Your task to perform on an android device: Open the calendar app, open the side menu, and click the "Day" option Image 0: 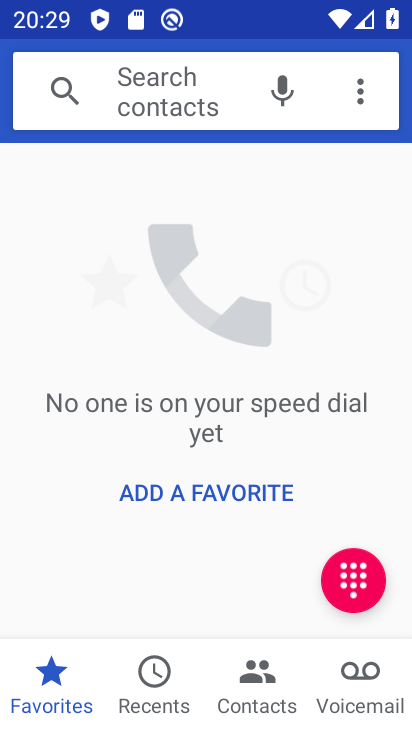
Step 0: press home button
Your task to perform on an android device: Open the calendar app, open the side menu, and click the "Day" option Image 1: 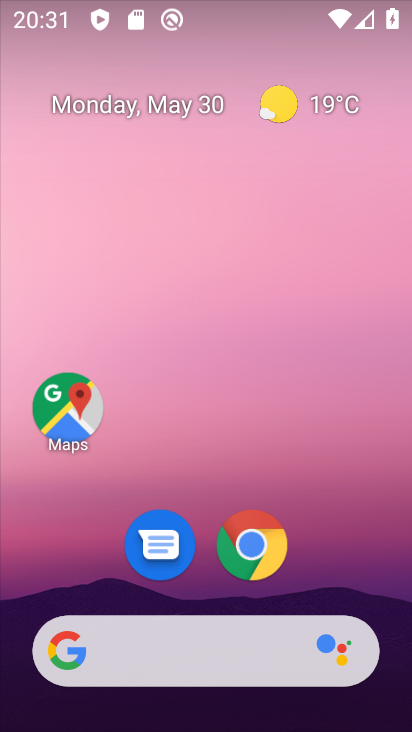
Step 1: click (182, 107)
Your task to perform on an android device: Open the calendar app, open the side menu, and click the "Day" option Image 2: 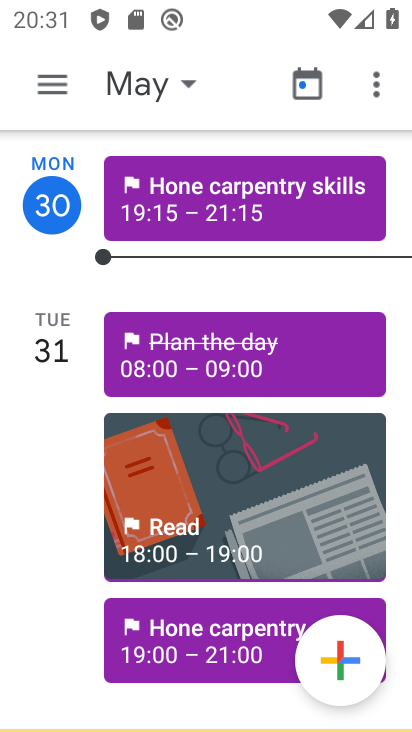
Step 2: click (56, 84)
Your task to perform on an android device: Open the calendar app, open the side menu, and click the "Day" option Image 3: 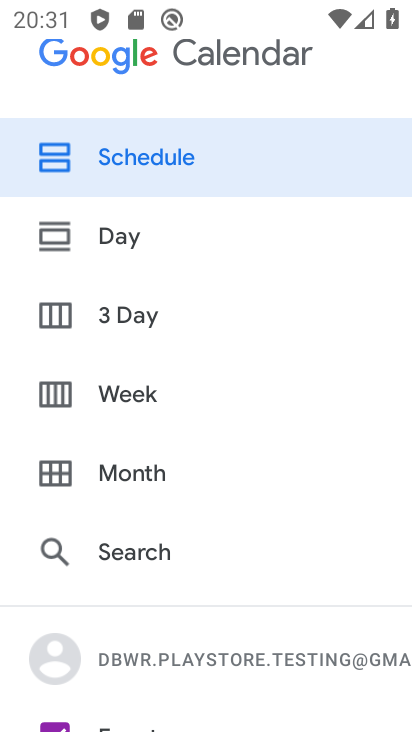
Step 3: click (128, 230)
Your task to perform on an android device: Open the calendar app, open the side menu, and click the "Day" option Image 4: 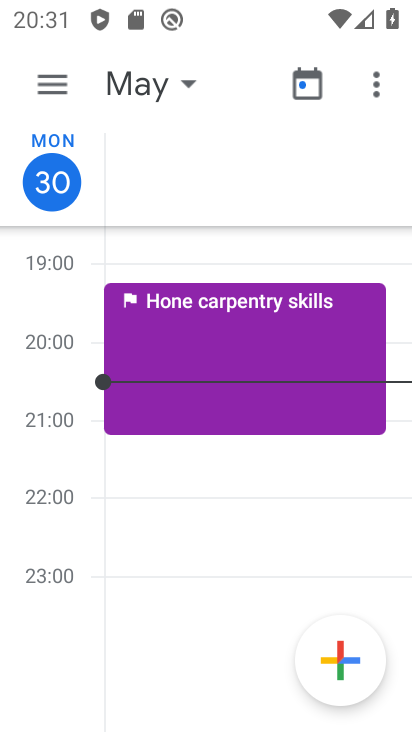
Step 4: task complete